Your task to perform on an android device: Go to battery settings Image 0: 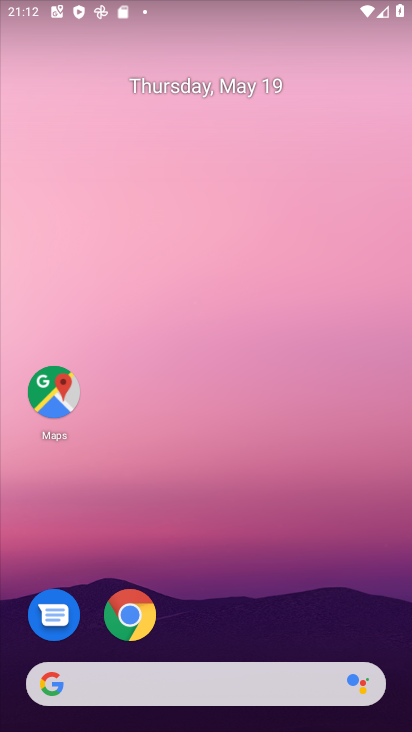
Step 0: press home button
Your task to perform on an android device: Go to battery settings Image 1: 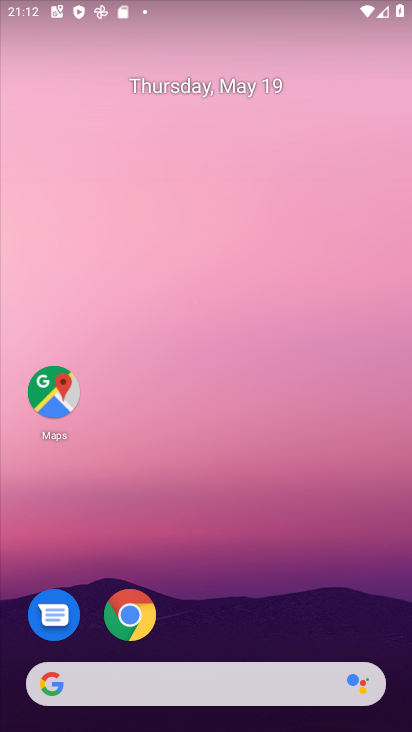
Step 1: drag from (245, 594) to (287, 38)
Your task to perform on an android device: Go to battery settings Image 2: 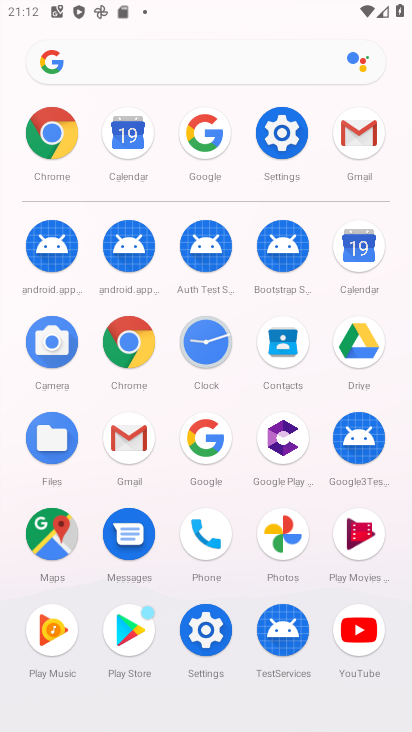
Step 2: click (285, 127)
Your task to perform on an android device: Go to battery settings Image 3: 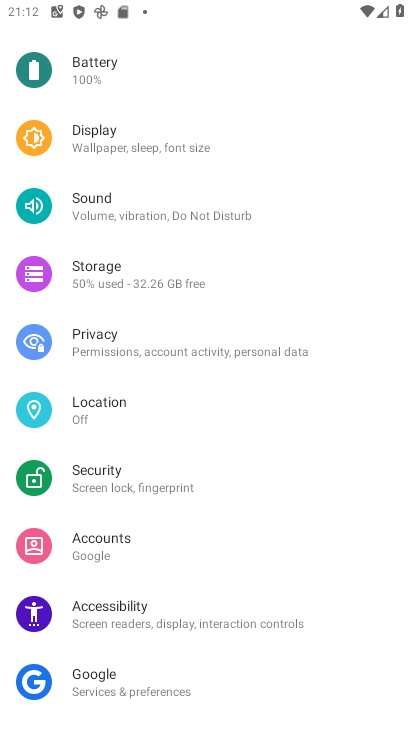
Step 3: click (114, 83)
Your task to perform on an android device: Go to battery settings Image 4: 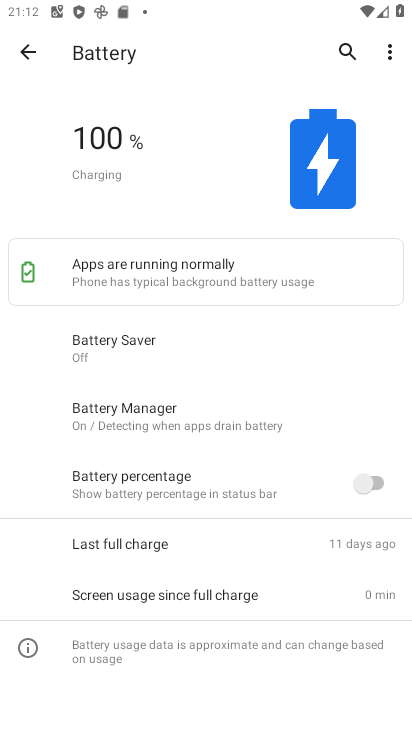
Step 4: task complete